Your task to perform on an android device: turn on data saver in the chrome app Image 0: 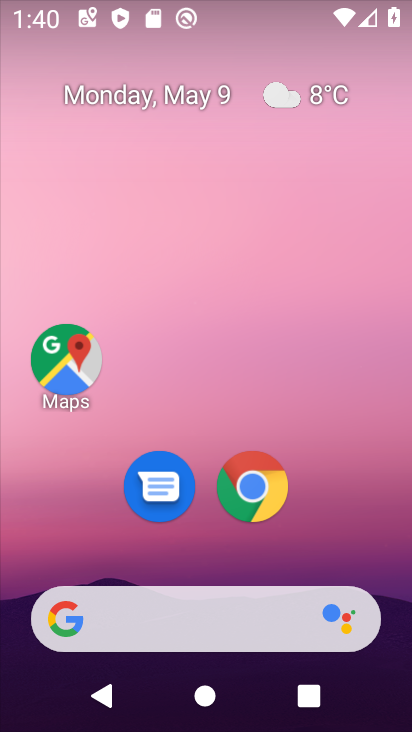
Step 0: click (249, 468)
Your task to perform on an android device: turn on data saver in the chrome app Image 1: 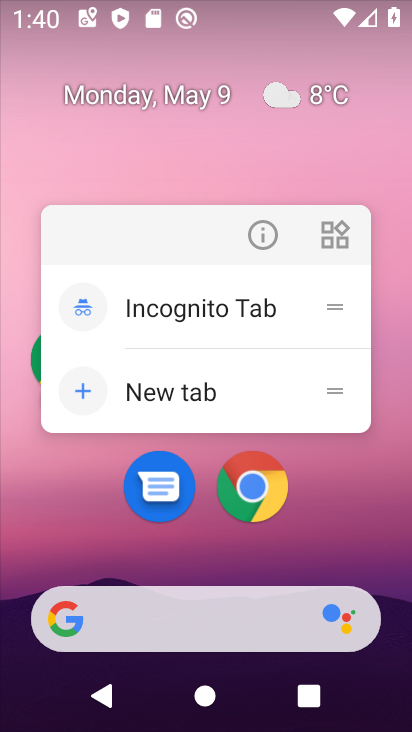
Step 1: click (249, 468)
Your task to perform on an android device: turn on data saver in the chrome app Image 2: 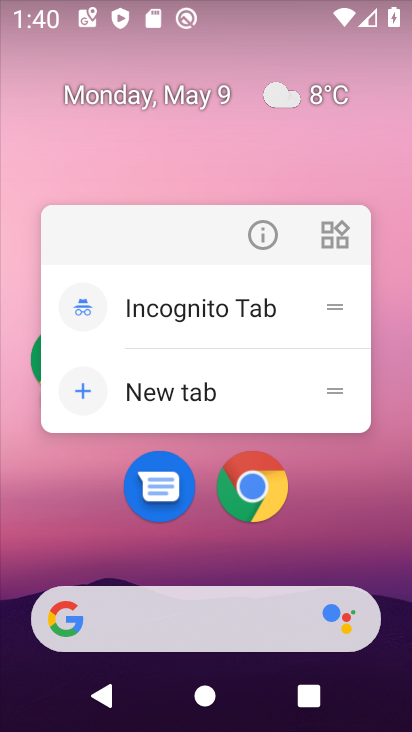
Step 2: click (249, 468)
Your task to perform on an android device: turn on data saver in the chrome app Image 3: 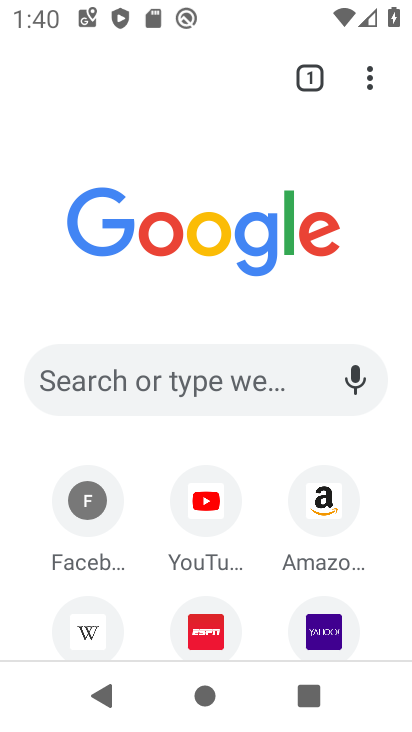
Step 3: click (376, 77)
Your task to perform on an android device: turn on data saver in the chrome app Image 4: 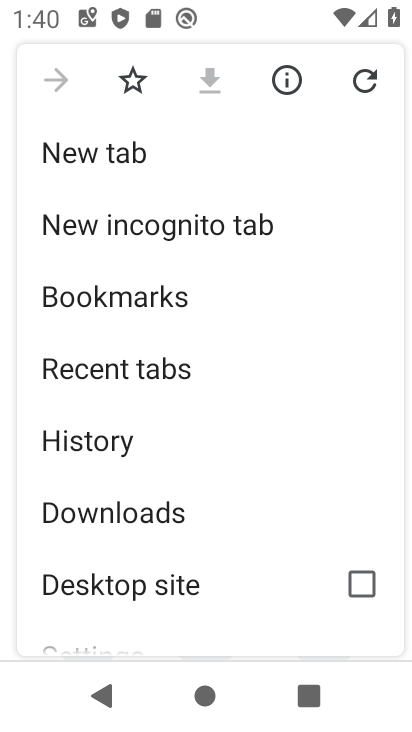
Step 4: drag from (221, 567) to (411, 180)
Your task to perform on an android device: turn on data saver in the chrome app Image 5: 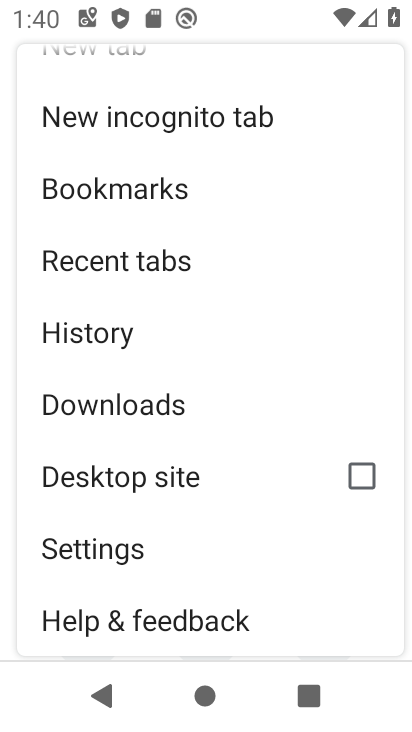
Step 5: click (214, 545)
Your task to perform on an android device: turn on data saver in the chrome app Image 6: 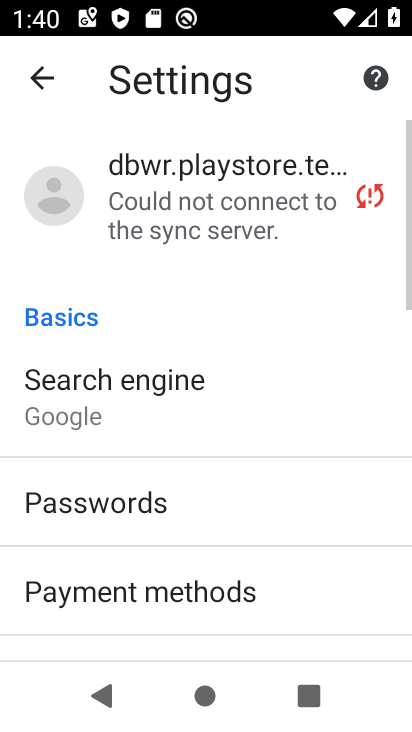
Step 6: drag from (246, 481) to (355, 231)
Your task to perform on an android device: turn on data saver in the chrome app Image 7: 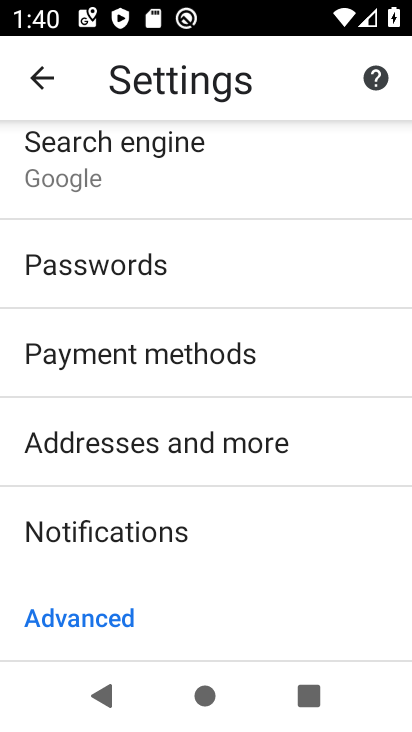
Step 7: drag from (271, 548) to (407, 214)
Your task to perform on an android device: turn on data saver in the chrome app Image 8: 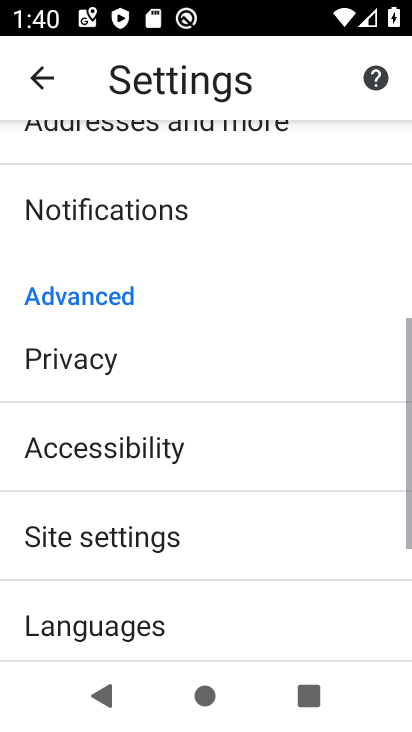
Step 8: drag from (247, 502) to (354, 187)
Your task to perform on an android device: turn on data saver in the chrome app Image 9: 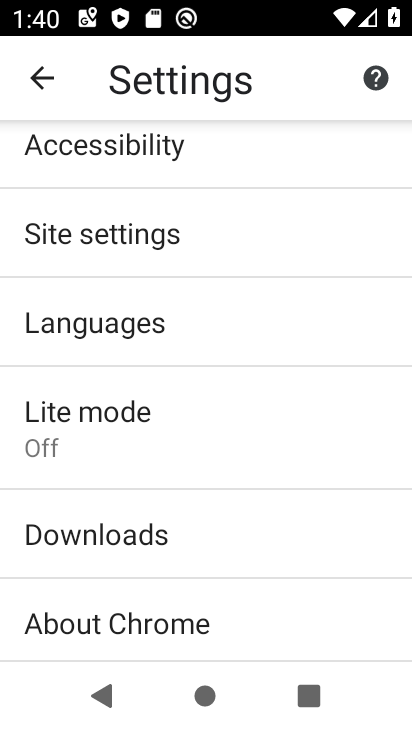
Step 9: drag from (300, 484) to (410, 145)
Your task to perform on an android device: turn on data saver in the chrome app Image 10: 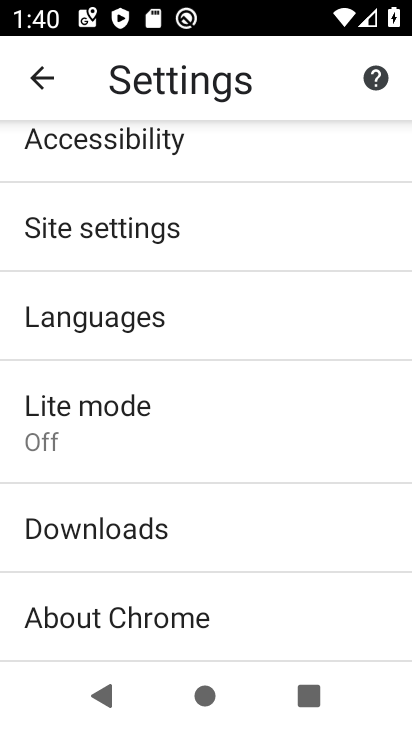
Step 10: drag from (255, 205) to (204, 404)
Your task to perform on an android device: turn on data saver in the chrome app Image 11: 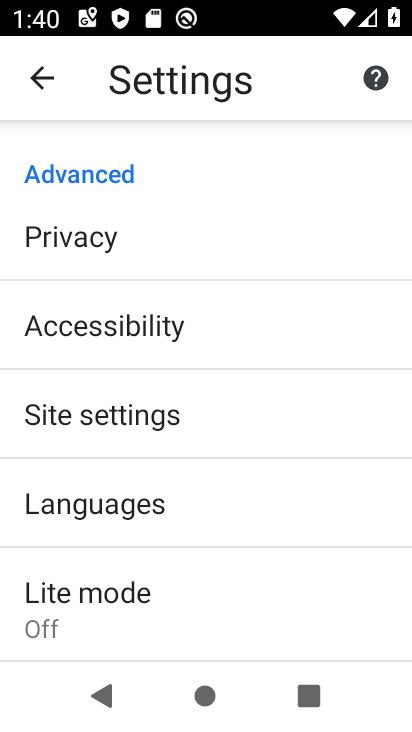
Step 11: click (204, 408)
Your task to perform on an android device: turn on data saver in the chrome app Image 12: 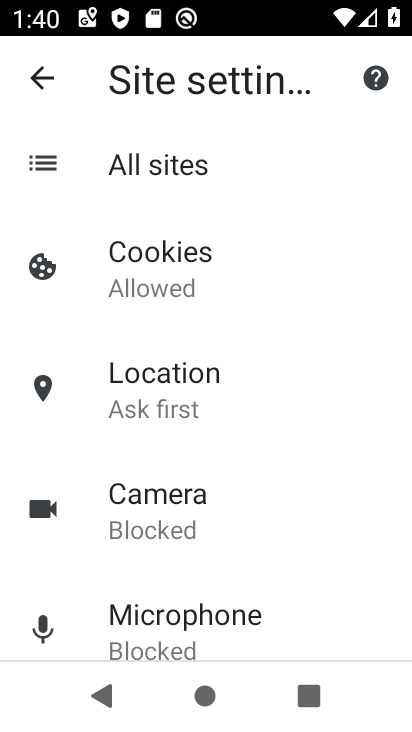
Step 12: click (272, 177)
Your task to perform on an android device: turn on data saver in the chrome app Image 13: 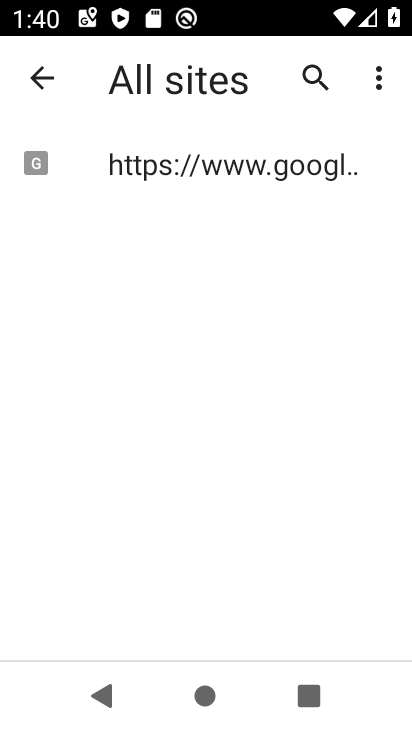
Step 13: click (41, 68)
Your task to perform on an android device: turn on data saver in the chrome app Image 14: 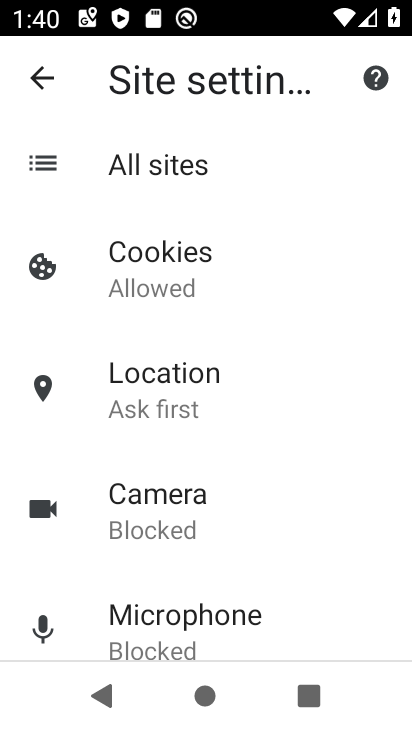
Step 14: drag from (249, 518) to (323, 306)
Your task to perform on an android device: turn on data saver in the chrome app Image 15: 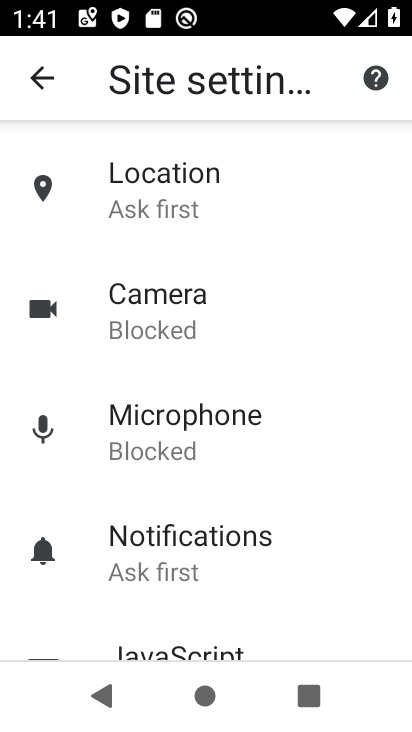
Step 15: drag from (190, 612) to (402, 260)
Your task to perform on an android device: turn on data saver in the chrome app Image 16: 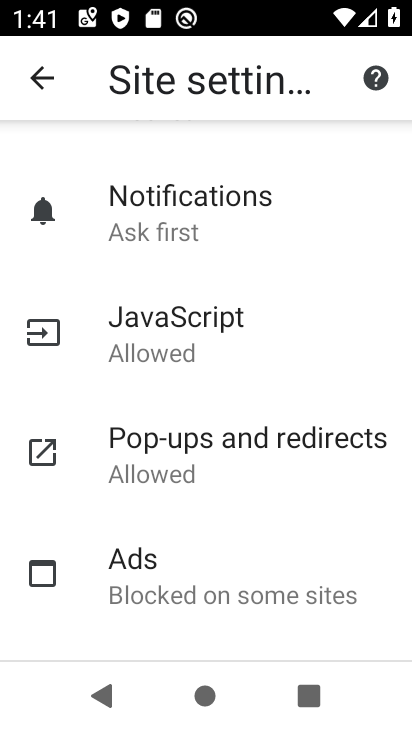
Step 16: drag from (216, 531) to (358, 182)
Your task to perform on an android device: turn on data saver in the chrome app Image 17: 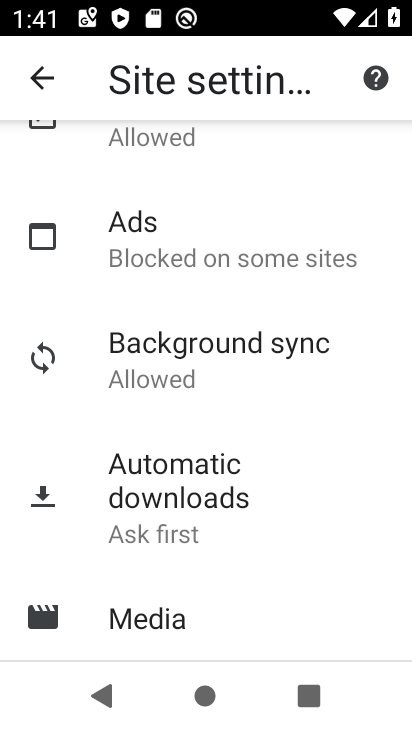
Step 17: drag from (172, 554) to (369, 149)
Your task to perform on an android device: turn on data saver in the chrome app Image 18: 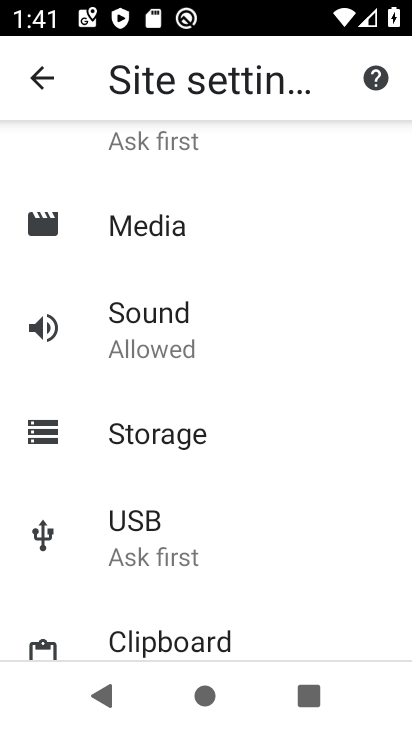
Step 18: drag from (188, 485) to (333, 135)
Your task to perform on an android device: turn on data saver in the chrome app Image 19: 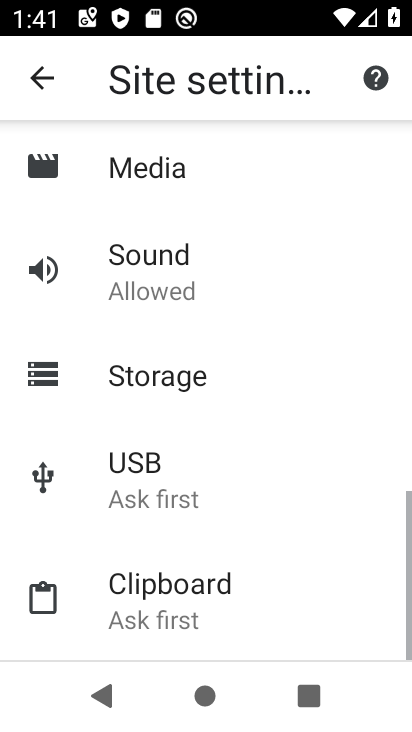
Step 19: drag from (155, 540) to (298, 259)
Your task to perform on an android device: turn on data saver in the chrome app Image 20: 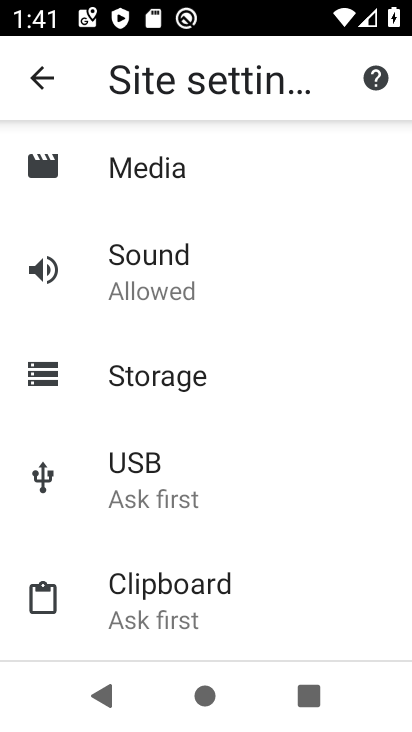
Step 20: click (37, 72)
Your task to perform on an android device: turn on data saver in the chrome app Image 21: 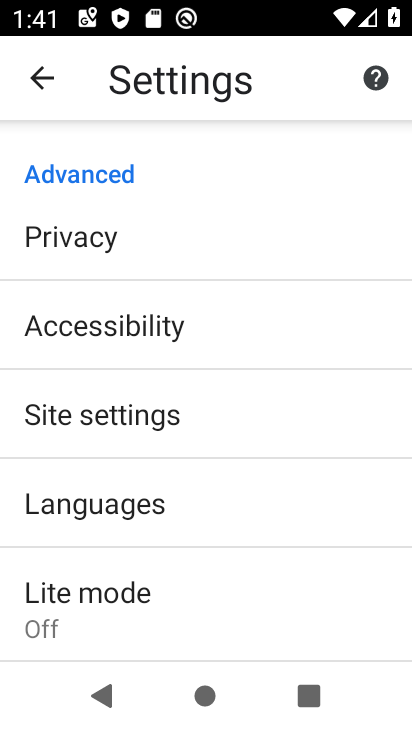
Step 21: drag from (191, 616) to (240, 311)
Your task to perform on an android device: turn on data saver in the chrome app Image 22: 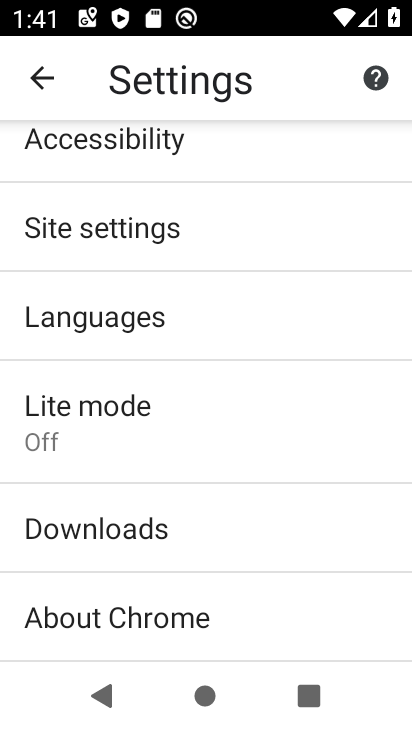
Step 22: drag from (196, 586) to (261, 293)
Your task to perform on an android device: turn on data saver in the chrome app Image 23: 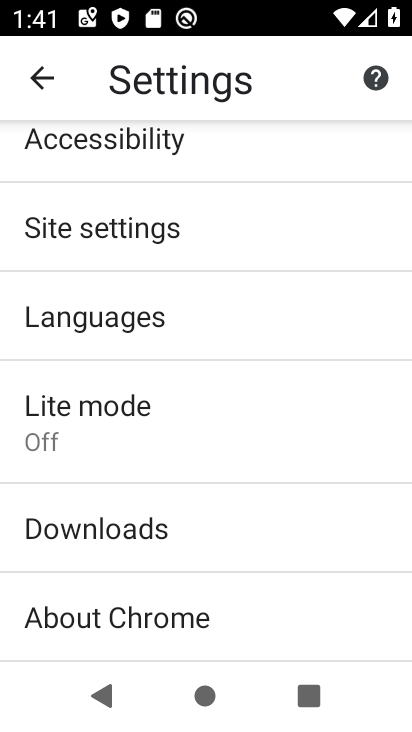
Step 23: click (35, 66)
Your task to perform on an android device: turn on data saver in the chrome app Image 24: 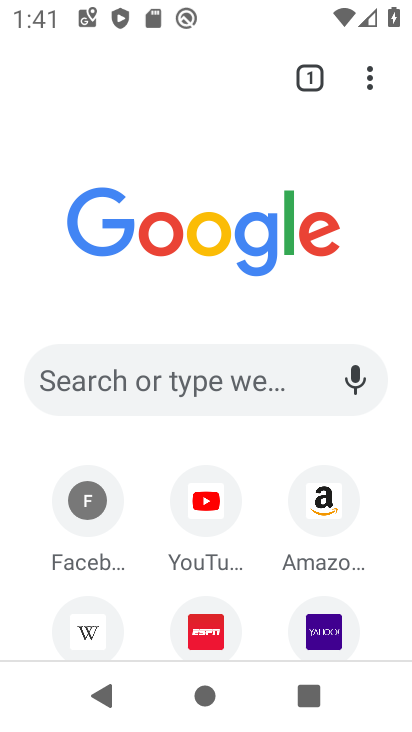
Step 24: click (370, 68)
Your task to perform on an android device: turn on data saver in the chrome app Image 25: 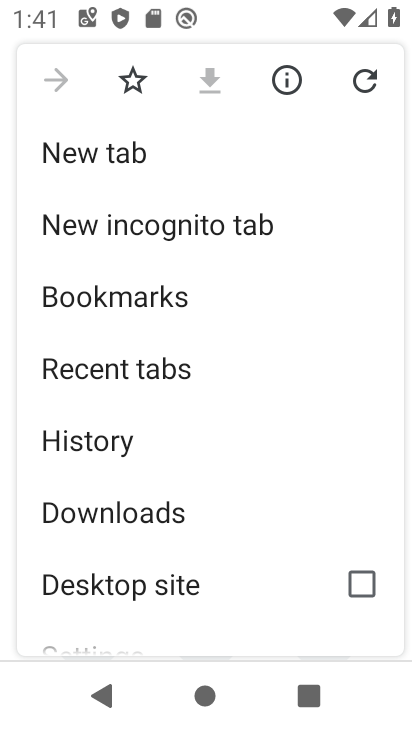
Step 25: drag from (252, 463) to (363, 133)
Your task to perform on an android device: turn on data saver in the chrome app Image 26: 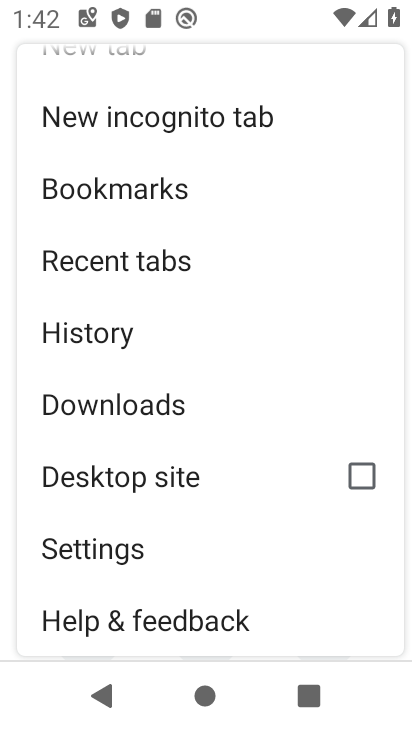
Step 26: drag from (235, 475) to (316, 255)
Your task to perform on an android device: turn on data saver in the chrome app Image 27: 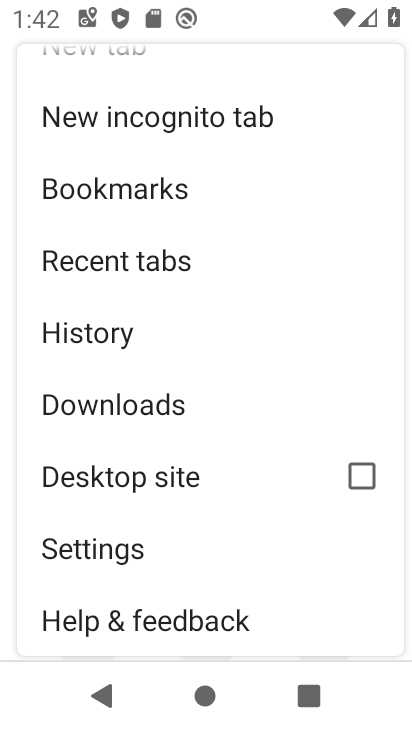
Step 27: click (124, 544)
Your task to perform on an android device: turn on data saver in the chrome app Image 28: 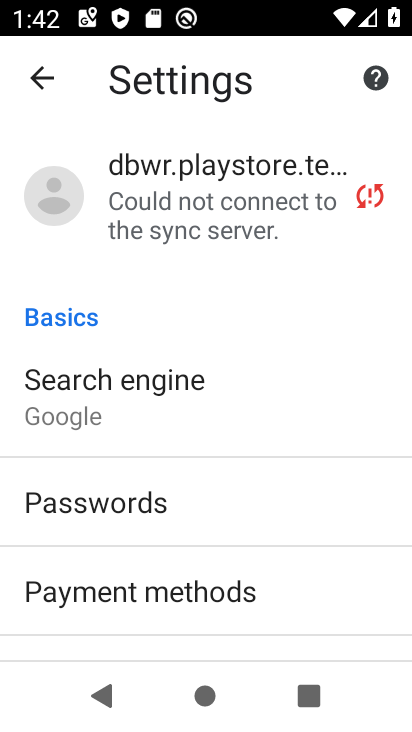
Step 28: drag from (248, 525) to (302, 303)
Your task to perform on an android device: turn on data saver in the chrome app Image 29: 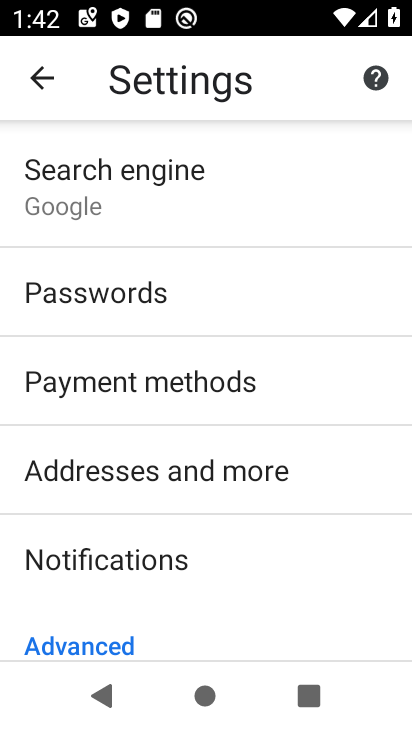
Step 29: drag from (254, 536) to (352, 268)
Your task to perform on an android device: turn on data saver in the chrome app Image 30: 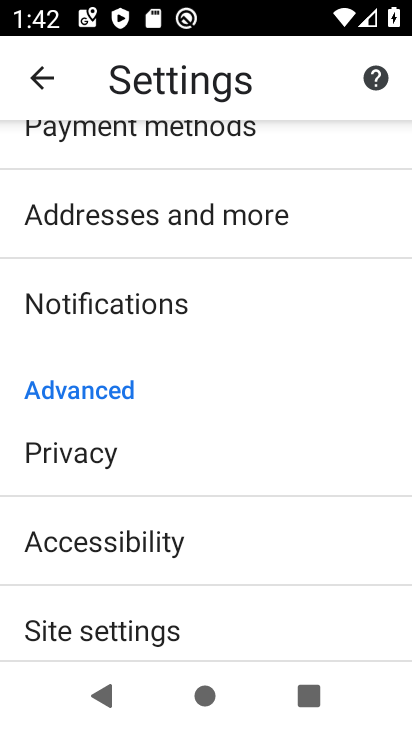
Step 30: drag from (213, 568) to (378, 165)
Your task to perform on an android device: turn on data saver in the chrome app Image 31: 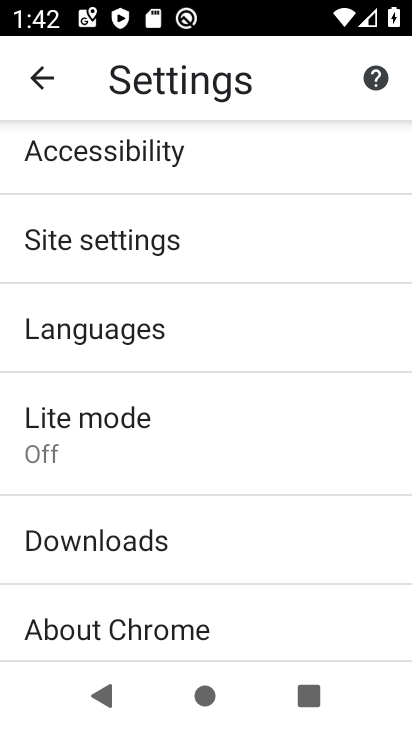
Step 31: click (140, 411)
Your task to perform on an android device: turn on data saver in the chrome app Image 32: 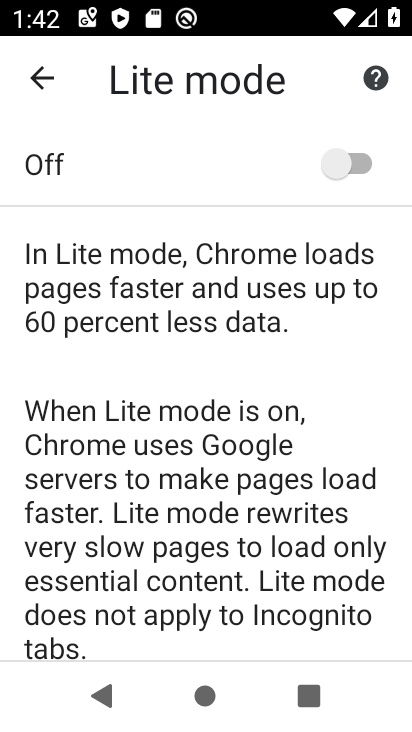
Step 32: click (366, 163)
Your task to perform on an android device: turn on data saver in the chrome app Image 33: 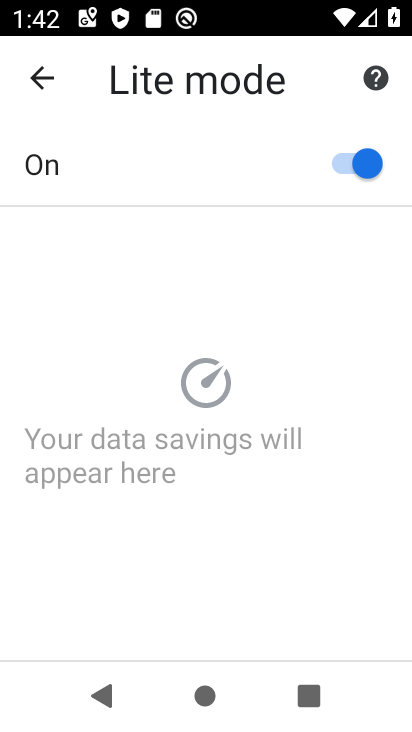
Step 33: task complete